Your task to perform on an android device: open sync settings in chrome Image 0: 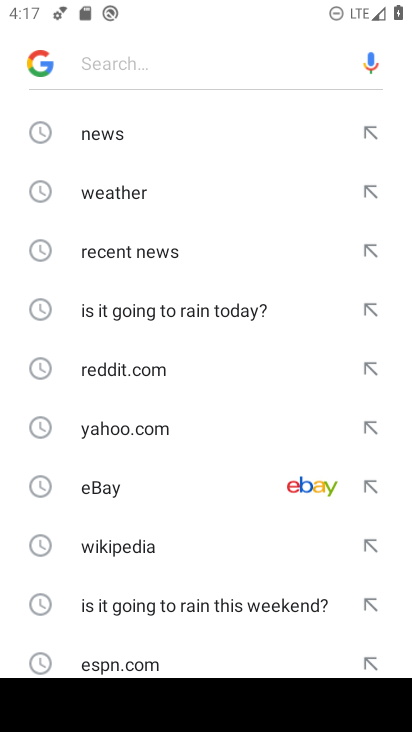
Step 0: press home button
Your task to perform on an android device: open sync settings in chrome Image 1: 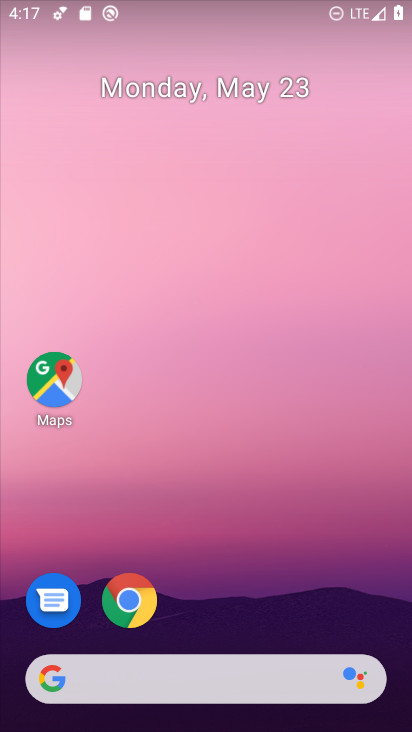
Step 1: click (134, 600)
Your task to perform on an android device: open sync settings in chrome Image 2: 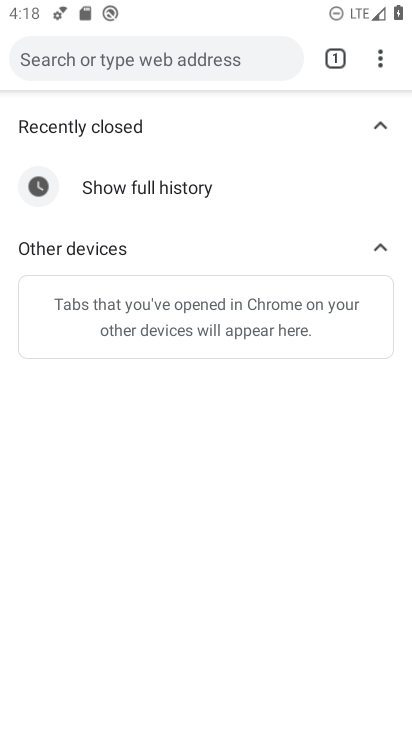
Step 2: click (387, 50)
Your task to perform on an android device: open sync settings in chrome Image 3: 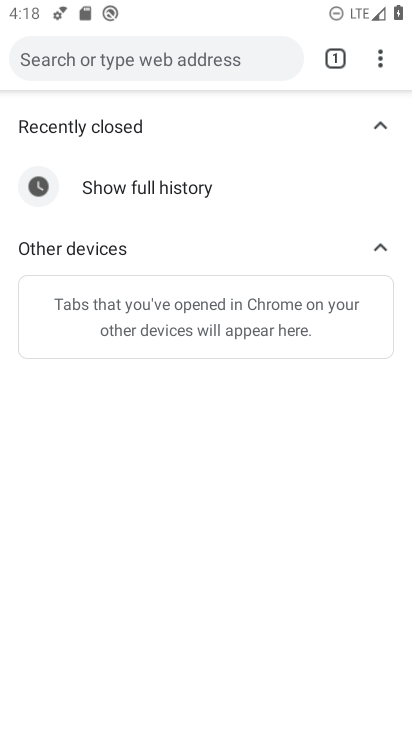
Step 3: click (387, 50)
Your task to perform on an android device: open sync settings in chrome Image 4: 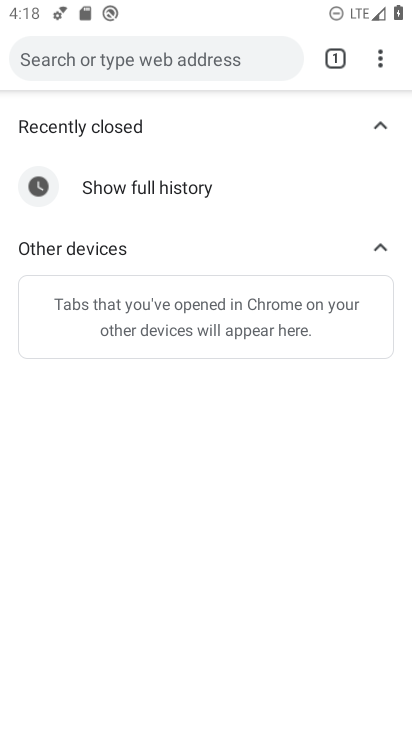
Step 4: click (382, 61)
Your task to perform on an android device: open sync settings in chrome Image 5: 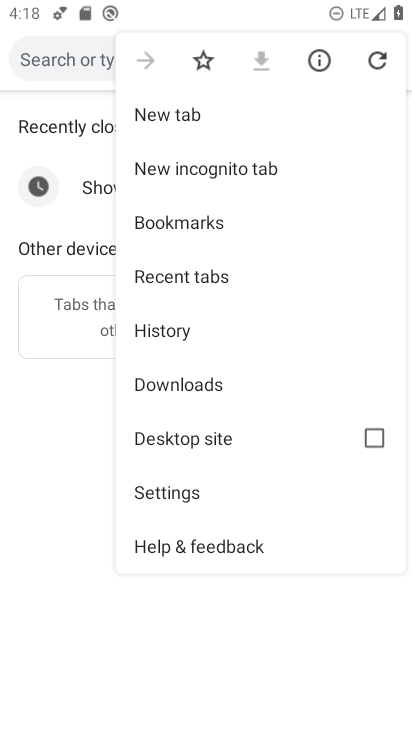
Step 5: click (186, 501)
Your task to perform on an android device: open sync settings in chrome Image 6: 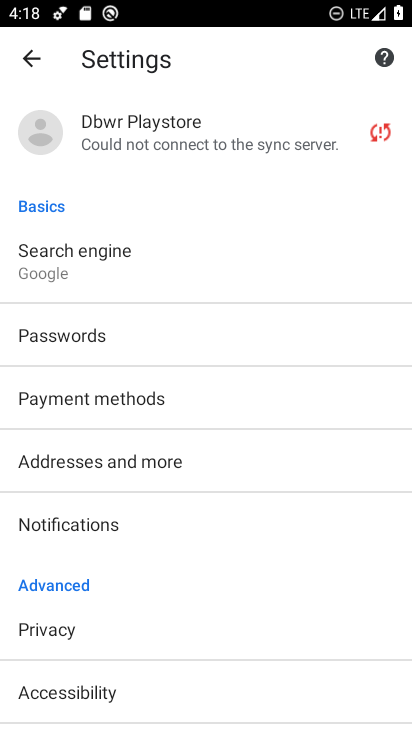
Step 6: click (152, 147)
Your task to perform on an android device: open sync settings in chrome Image 7: 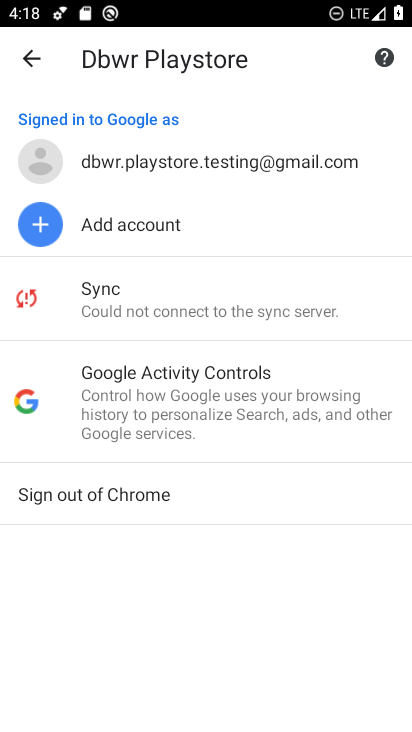
Step 7: click (148, 295)
Your task to perform on an android device: open sync settings in chrome Image 8: 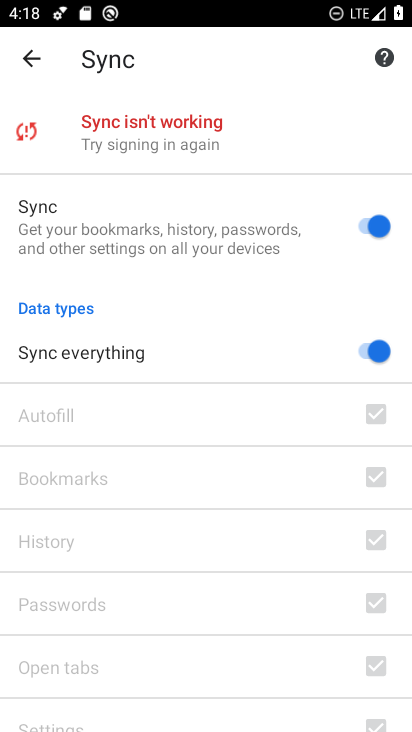
Step 8: task complete